Your task to perform on an android device: turn on airplane mode Image 0: 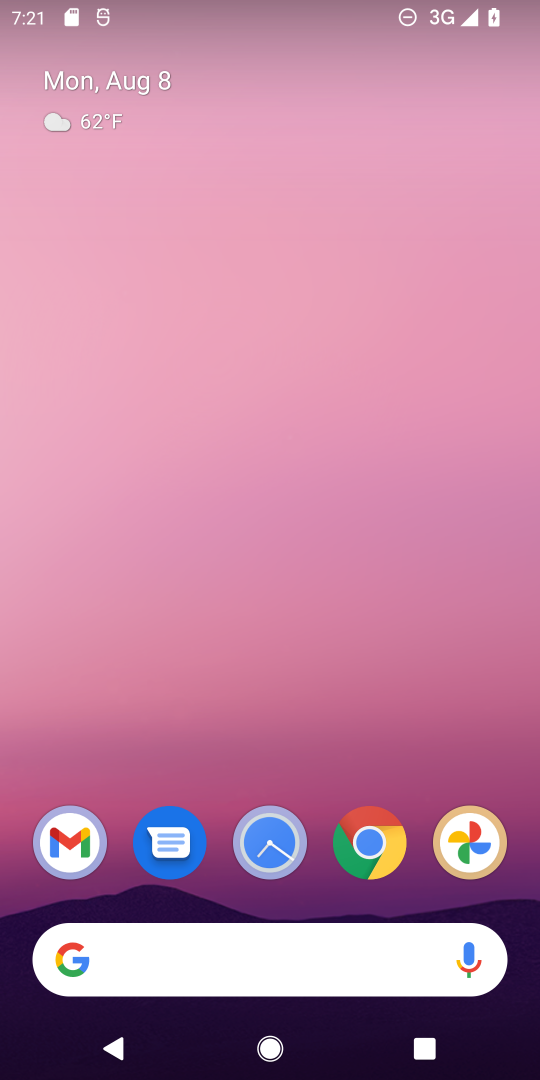
Step 0: drag from (277, 928) to (492, 13)
Your task to perform on an android device: turn on airplane mode Image 1: 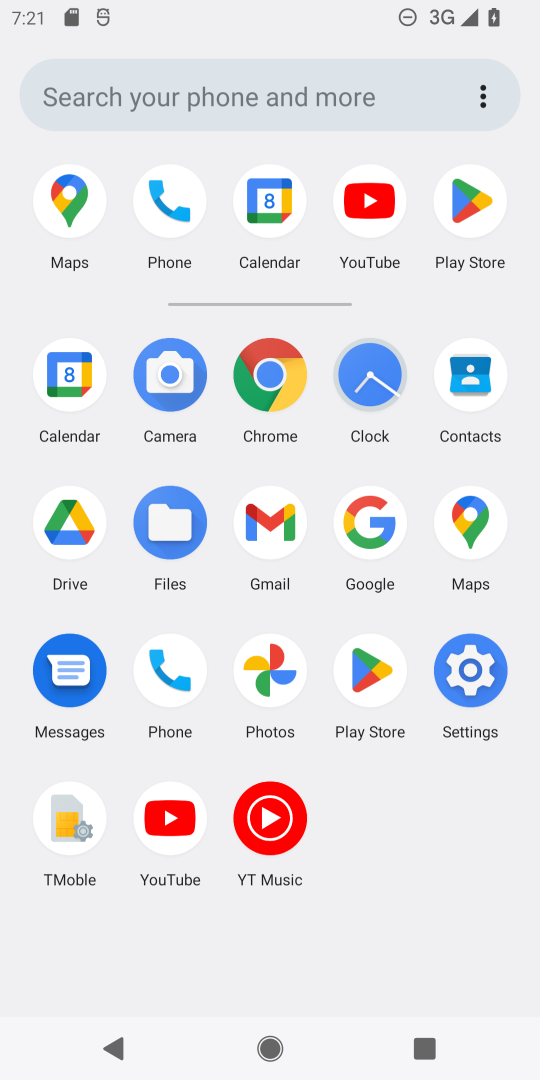
Step 1: click (454, 713)
Your task to perform on an android device: turn on airplane mode Image 2: 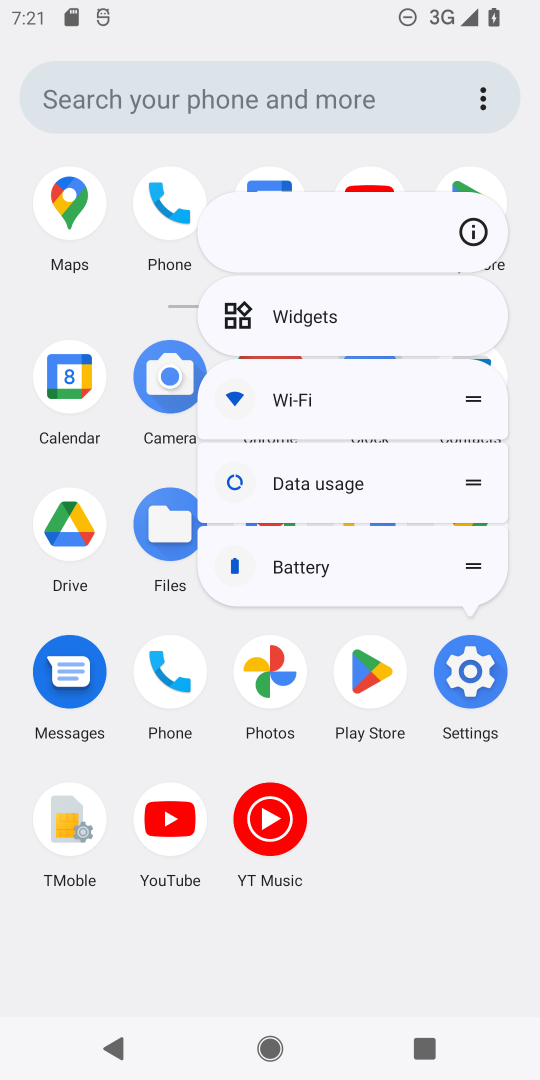
Step 2: click (458, 688)
Your task to perform on an android device: turn on airplane mode Image 3: 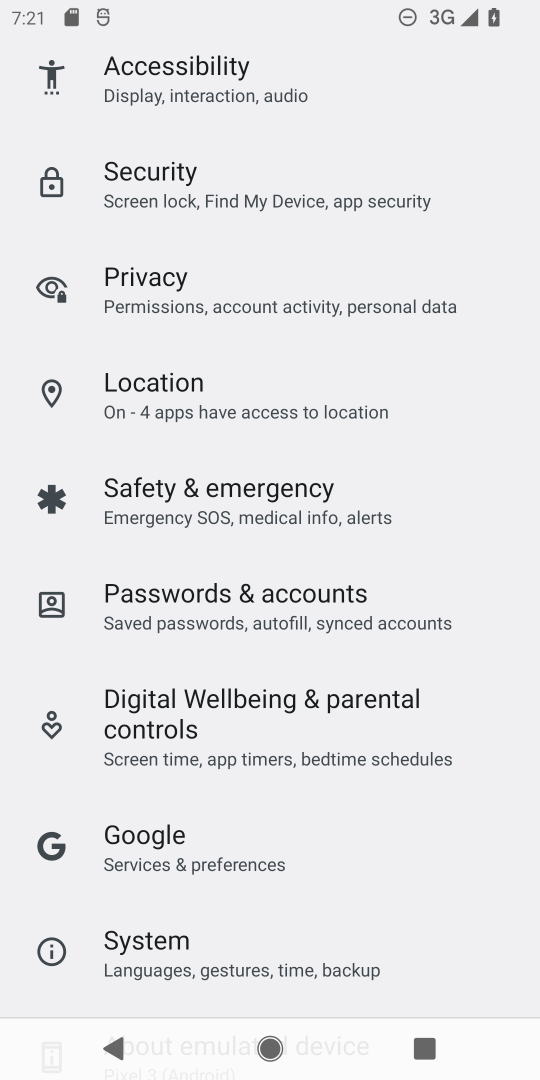
Step 3: drag from (226, 285) to (235, 874)
Your task to perform on an android device: turn on airplane mode Image 4: 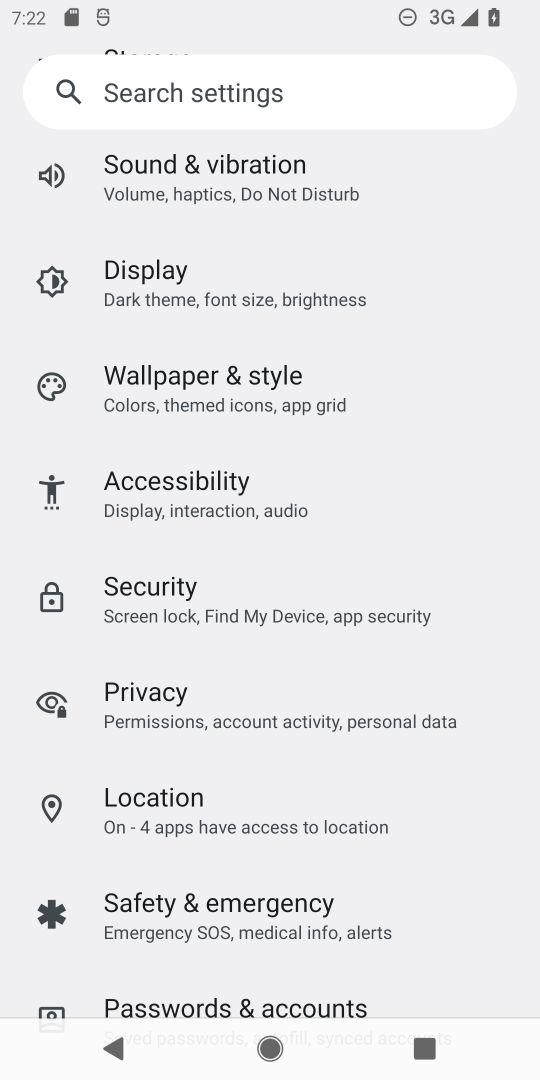
Step 4: drag from (235, 535) to (222, 1056)
Your task to perform on an android device: turn on airplane mode Image 5: 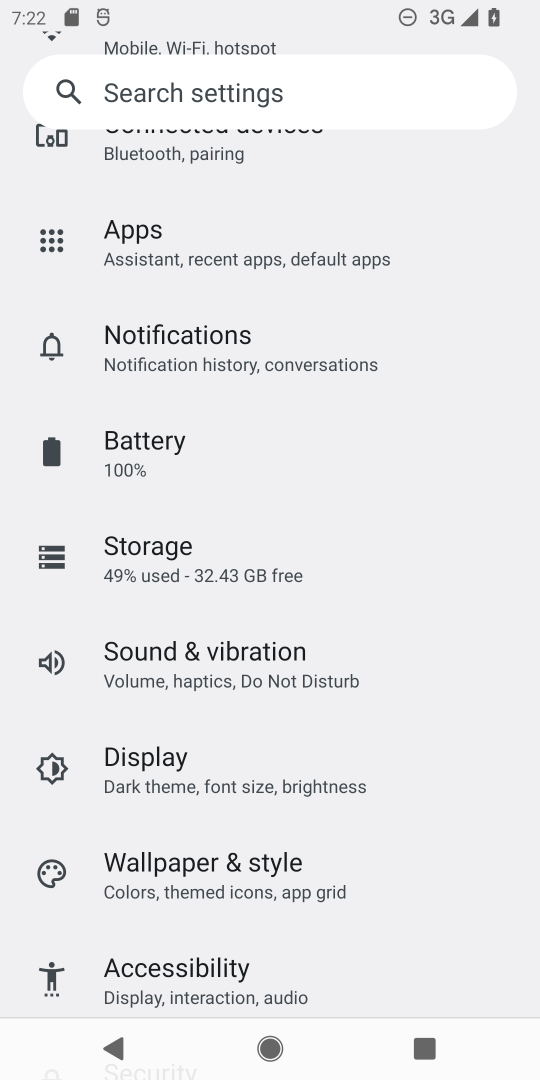
Step 5: drag from (168, 306) to (234, 850)
Your task to perform on an android device: turn on airplane mode Image 6: 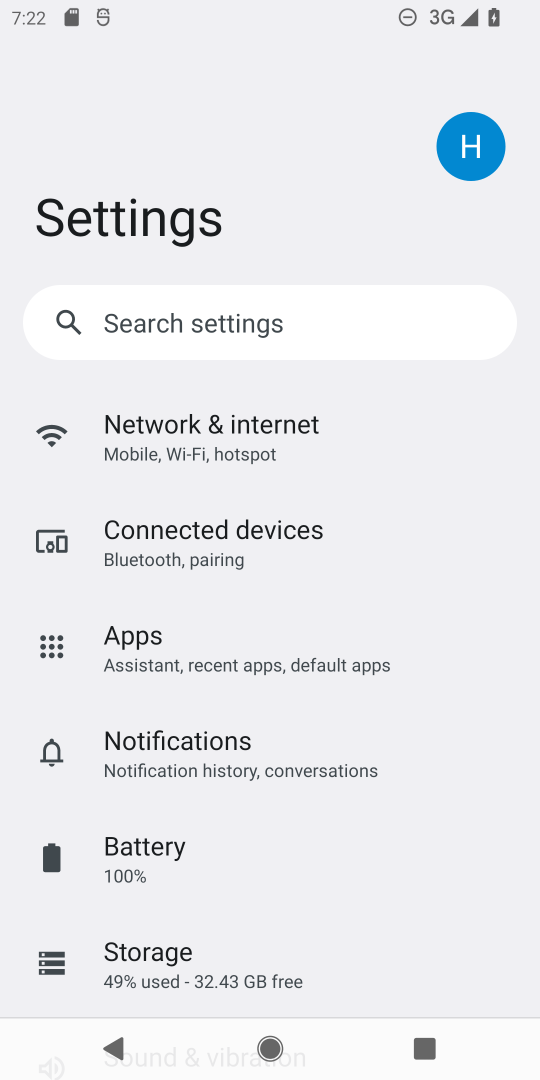
Step 6: click (230, 425)
Your task to perform on an android device: turn on airplane mode Image 7: 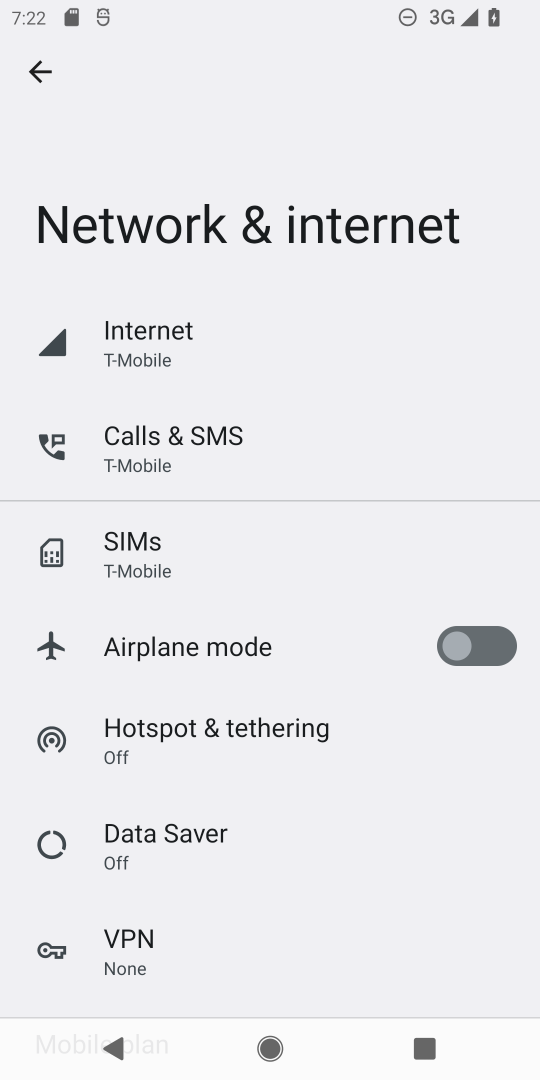
Step 7: click (463, 651)
Your task to perform on an android device: turn on airplane mode Image 8: 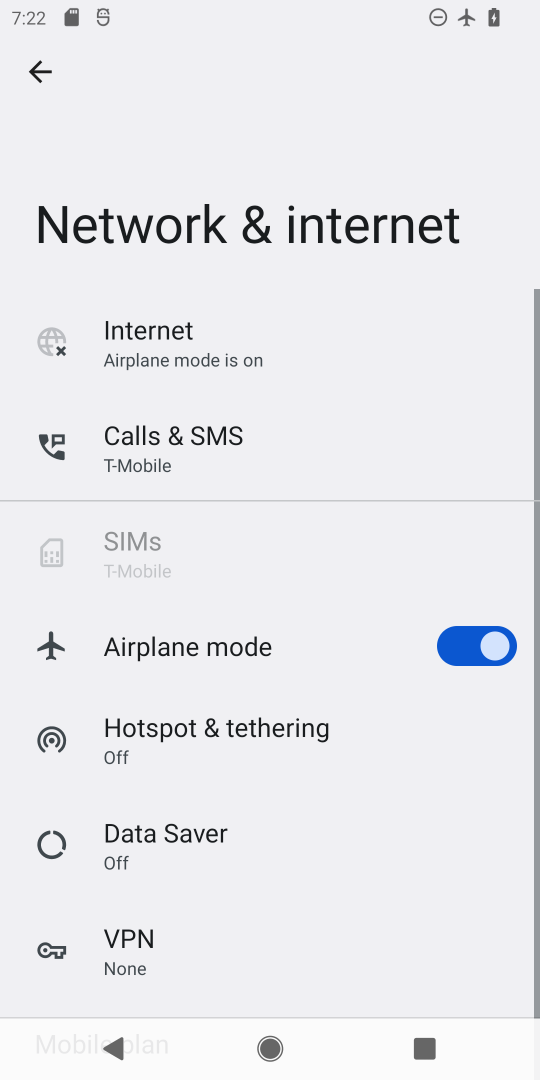
Step 8: task complete